Your task to perform on an android device: add a contact in the contacts app Image 0: 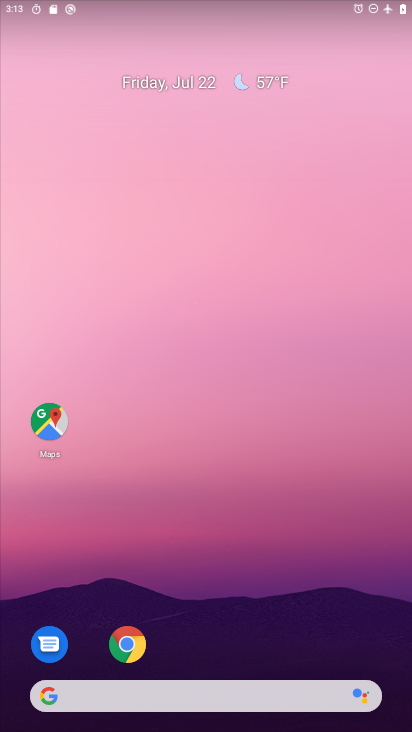
Step 0: drag from (214, 632) to (187, 243)
Your task to perform on an android device: add a contact in the contacts app Image 1: 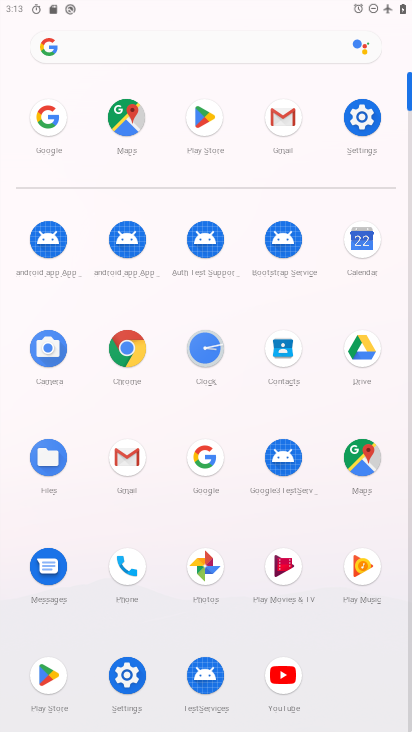
Step 1: click (274, 372)
Your task to perform on an android device: add a contact in the contacts app Image 2: 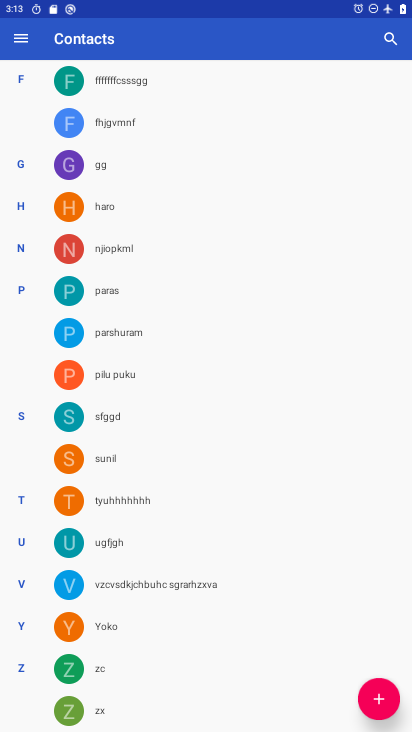
Step 2: click (380, 682)
Your task to perform on an android device: add a contact in the contacts app Image 3: 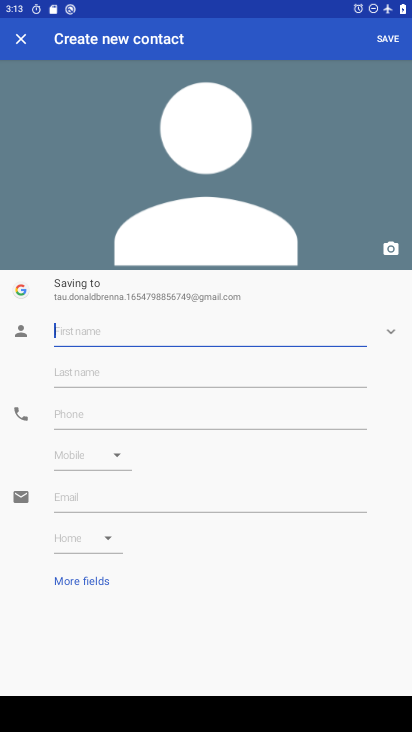
Step 3: type "hcnvgn"
Your task to perform on an android device: add a contact in the contacts app Image 4: 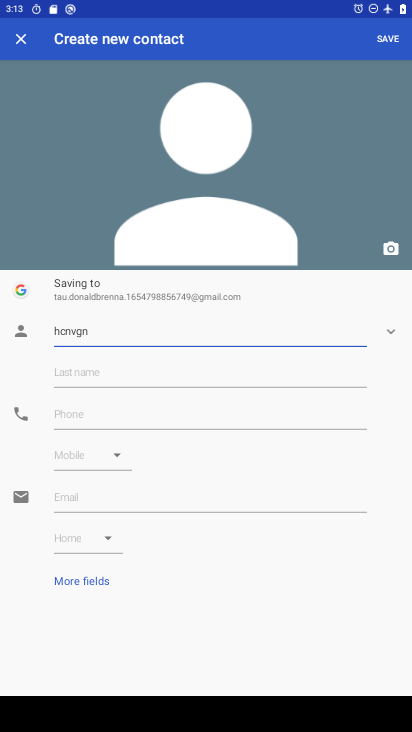
Step 4: click (65, 420)
Your task to perform on an android device: add a contact in the contacts app Image 5: 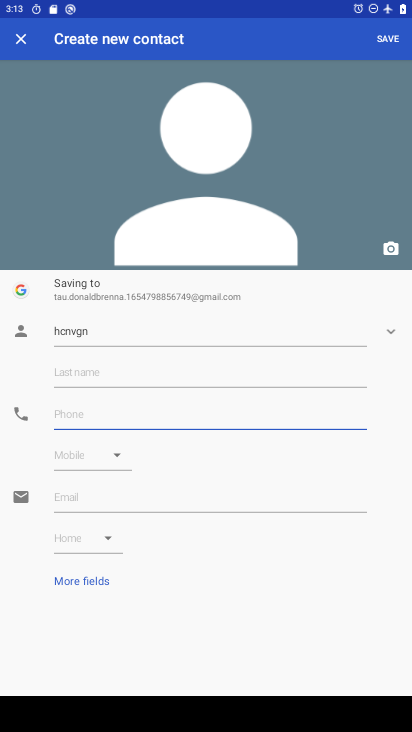
Step 5: type "74653553568"
Your task to perform on an android device: add a contact in the contacts app Image 6: 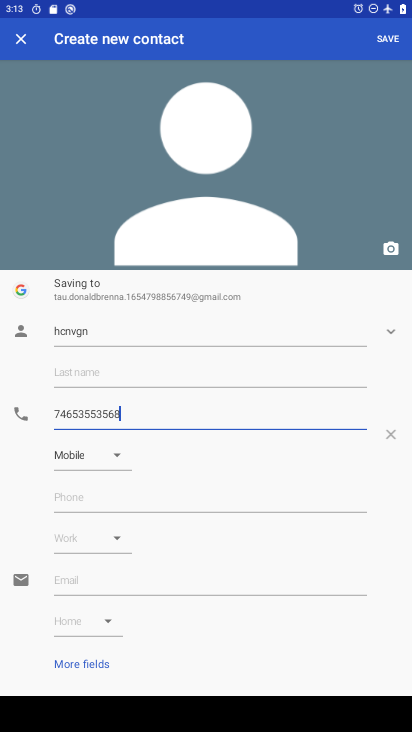
Step 6: click (369, 45)
Your task to perform on an android device: add a contact in the contacts app Image 7: 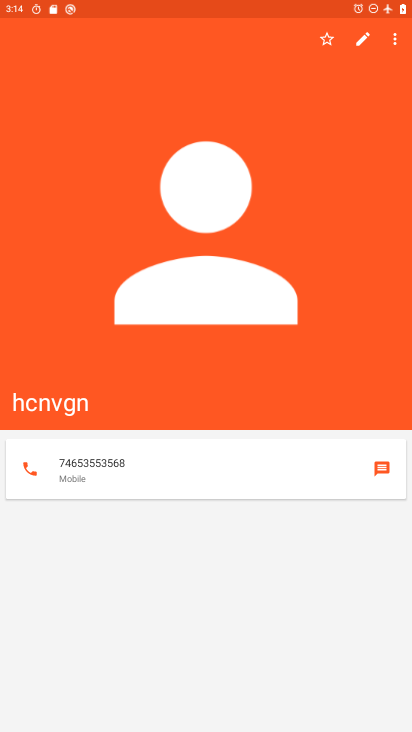
Step 7: task complete